Your task to perform on an android device: Clear the shopping cart on ebay.com. Search for "razer deathadder" on ebay.com, select the first entry, and add it to the cart. Image 0: 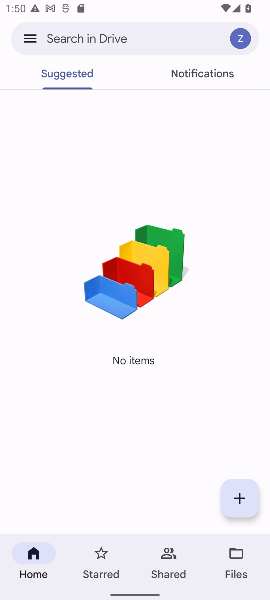
Step 0: press home button
Your task to perform on an android device: Clear the shopping cart on ebay.com. Search for "razer deathadder" on ebay.com, select the first entry, and add it to the cart. Image 1: 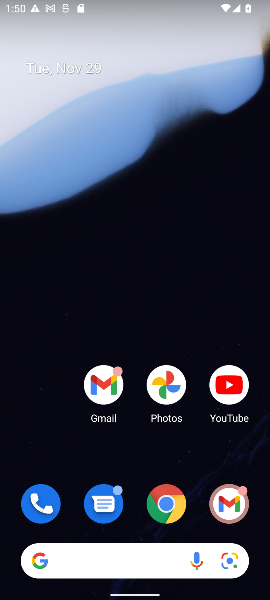
Step 1: click (161, 506)
Your task to perform on an android device: Clear the shopping cart on ebay.com. Search for "razer deathadder" on ebay.com, select the first entry, and add it to the cart. Image 2: 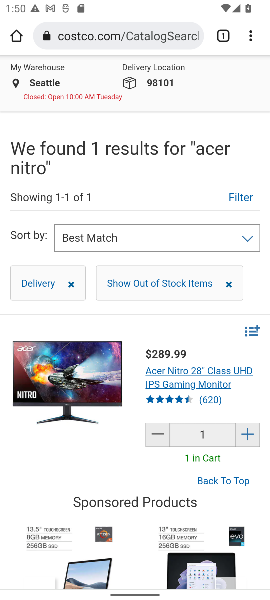
Step 2: click (112, 31)
Your task to perform on an android device: Clear the shopping cart on ebay.com. Search for "razer deathadder" on ebay.com, select the first entry, and add it to the cart. Image 3: 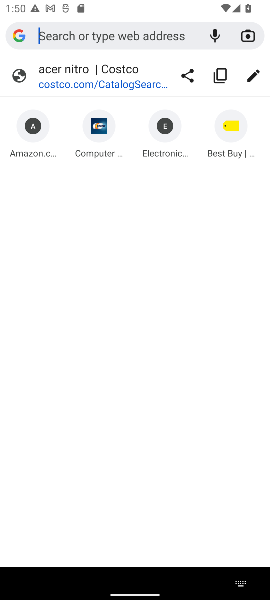
Step 3: type "ebay.com"
Your task to perform on an android device: Clear the shopping cart on ebay.com. Search for "razer deathadder" on ebay.com, select the first entry, and add it to the cart. Image 4: 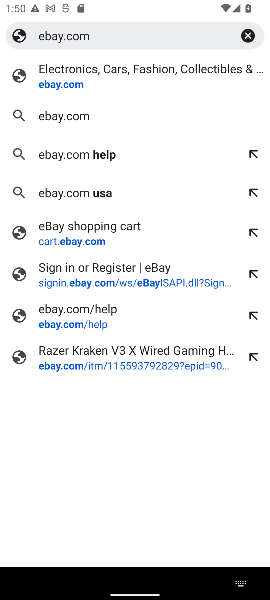
Step 4: click (69, 80)
Your task to perform on an android device: Clear the shopping cart on ebay.com. Search for "razer deathadder" on ebay.com, select the first entry, and add it to the cart. Image 5: 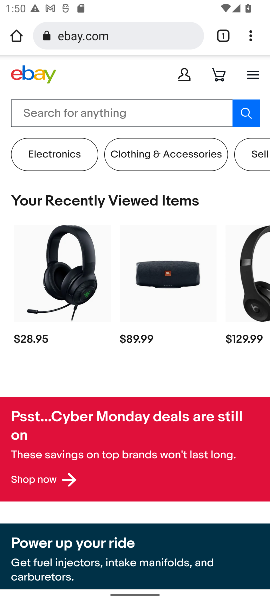
Step 5: click (219, 71)
Your task to perform on an android device: Clear the shopping cart on ebay.com. Search for "razer deathadder" on ebay.com, select the first entry, and add it to the cart. Image 6: 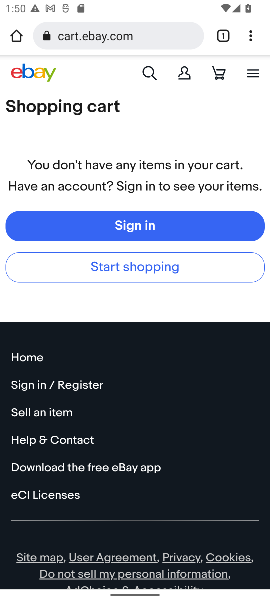
Step 6: click (145, 71)
Your task to perform on an android device: Clear the shopping cart on ebay.com. Search for "razer deathadder" on ebay.com, select the first entry, and add it to the cart. Image 7: 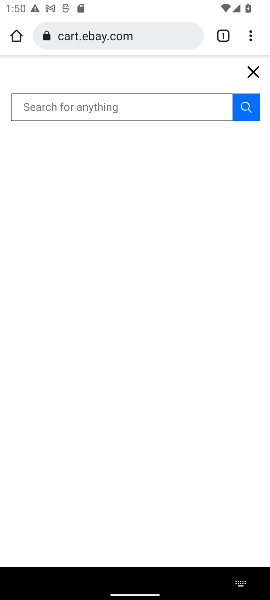
Step 7: type "razer deathadder"
Your task to perform on an android device: Clear the shopping cart on ebay.com. Search for "razer deathadder" on ebay.com, select the first entry, and add it to the cart. Image 8: 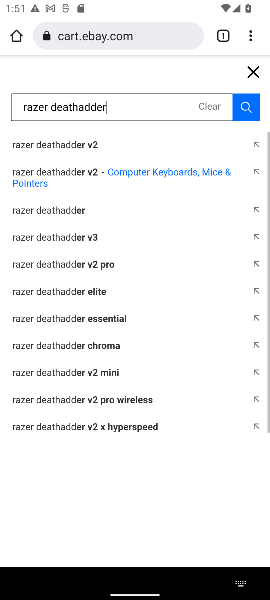
Step 8: click (38, 211)
Your task to perform on an android device: Clear the shopping cart on ebay.com. Search for "razer deathadder" on ebay.com, select the first entry, and add it to the cart. Image 9: 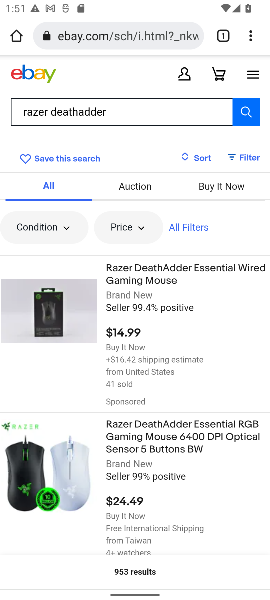
Step 9: click (83, 305)
Your task to perform on an android device: Clear the shopping cart on ebay.com. Search for "razer deathadder" on ebay.com, select the first entry, and add it to the cart. Image 10: 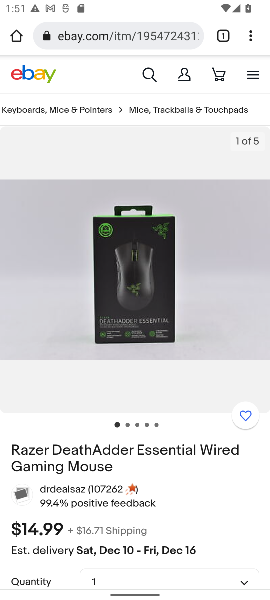
Step 10: drag from (131, 382) to (131, 221)
Your task to perform on an android device: Clear the shopping cart on ebay.com. Search for "razer deathadder" on ebay.com, select the first entry, and add it to the cart. Image 11: 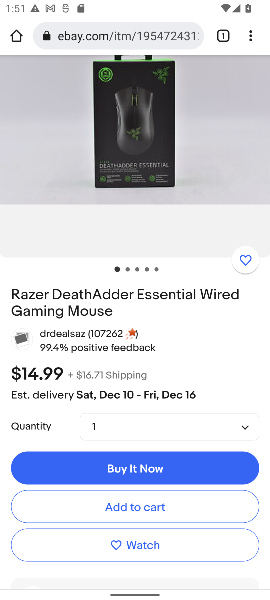
Step 11: click (138, 510)
Your task to perform on an android device: Clear the shopping cart on ebay.com. Search for "razer deathadder" on ebay.com, select the first entry, and add it to the cart. Image 12: 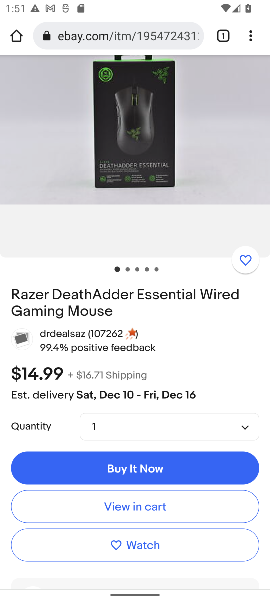
Step 12: task complete